Your task to perform on an android device: toggle notification dots Image 0: 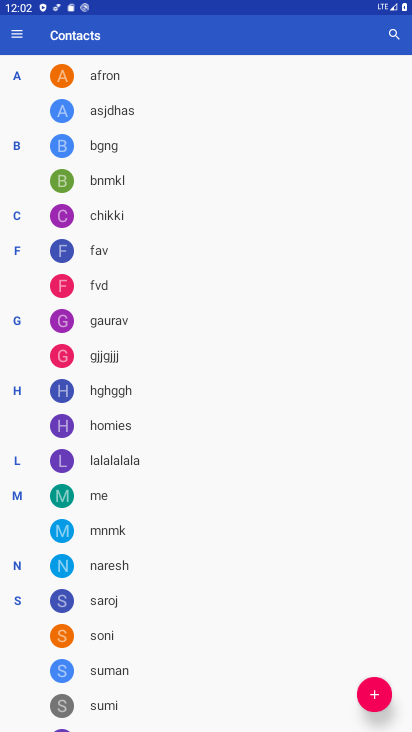
Step 0: press back button
Your task to perform on an android device: toggle notification dots Image 1: 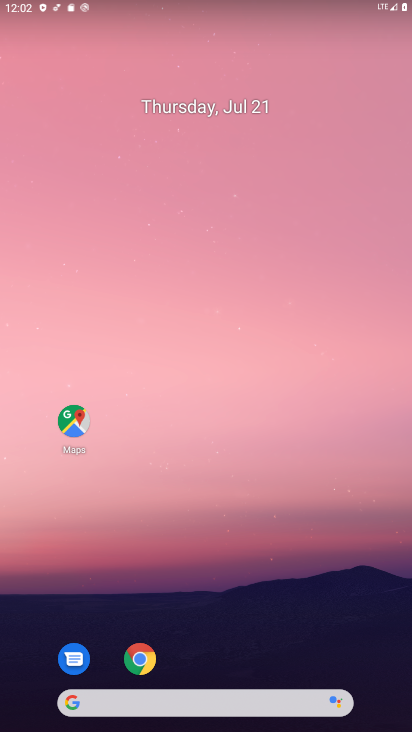
Step 1: drag from (196, 662) to (227, 7)
Your task to perform on an android device: toggle notification dots Image 2: 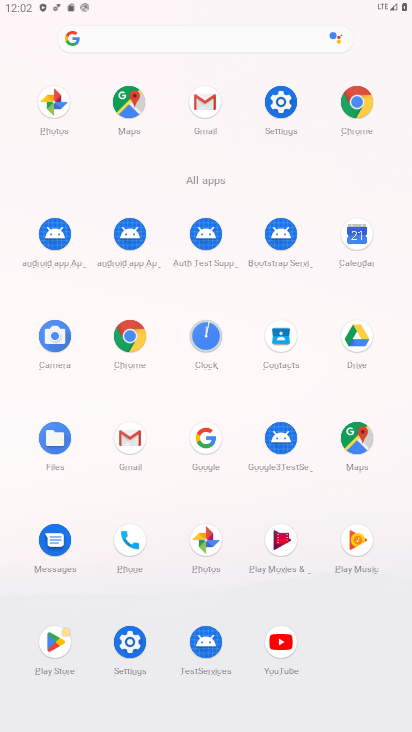
Step 2: click (275, 107)
Your task to perform on an android device: toggle notification dots Image 3: 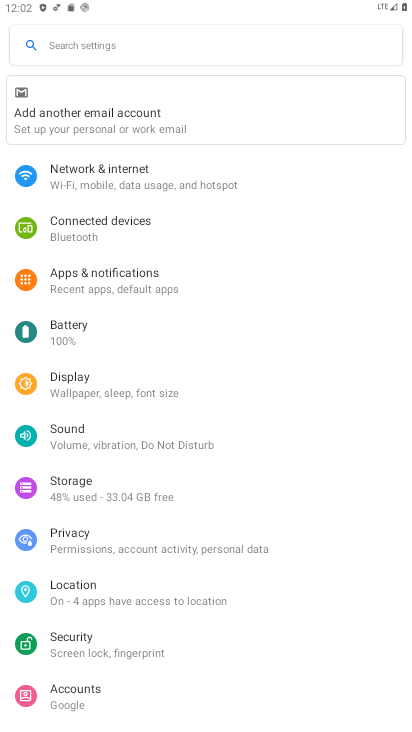
Step 3: click (87, 284)
Your task to perform on an android device: toggle notification dots Image 4: 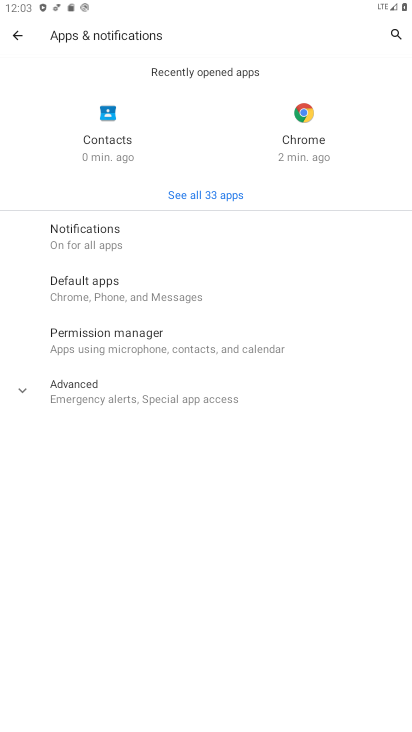
Step 4: click (104, 234)
Your task to perform on an android device: toggle notification dots Image 5: 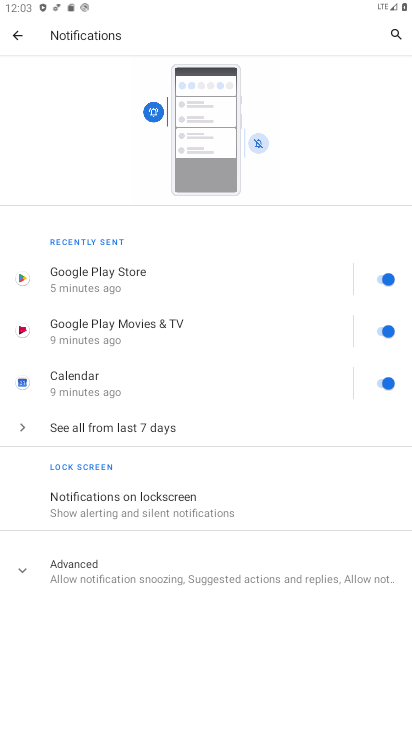
Step 5: click (137, 513)
Your task to perform on an android device: toggle notification dots Image 6: 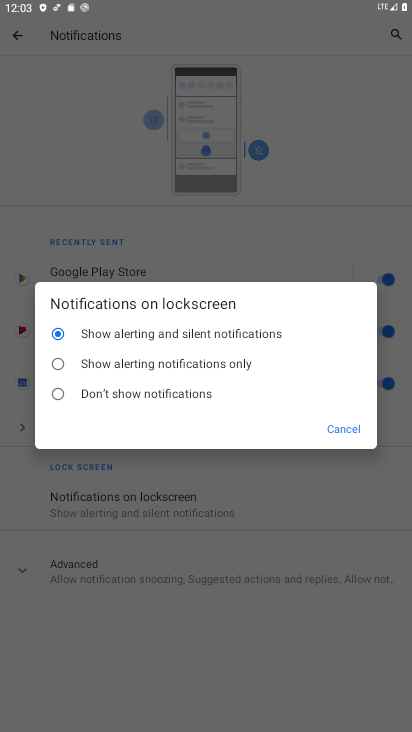
Step 6: click (335, 427)
Your task to perform on an android device: toggle notification dots Image 7: 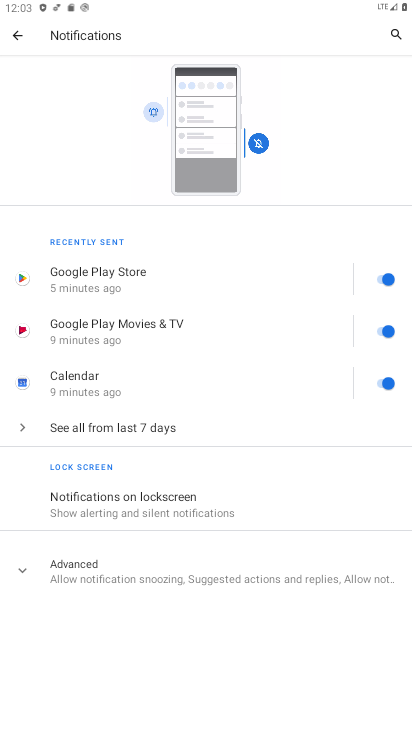
Step 7: click (59, 568)
Your task to perform on an android device: toggle notification dots Image 8: 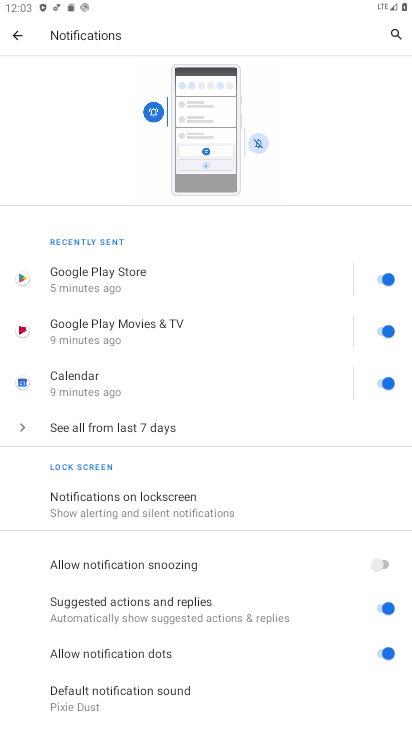
Step 8: click (384, 658)
Your task to perform on an android device: toggle notification dots Image 9: 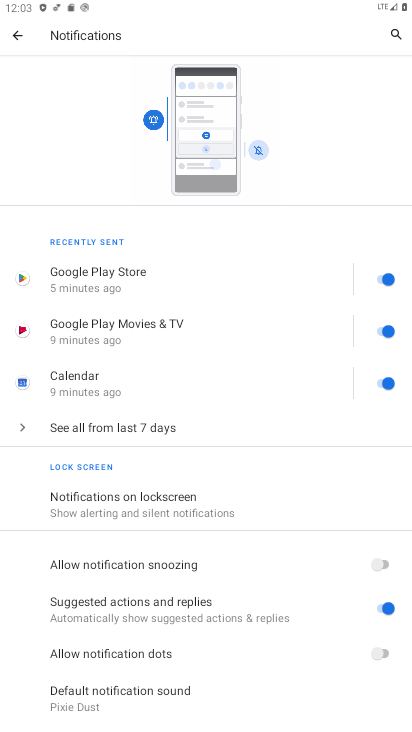
Step 9: task complete